Your task to perform on an android device: check the backup settings in the google photos Image 0: 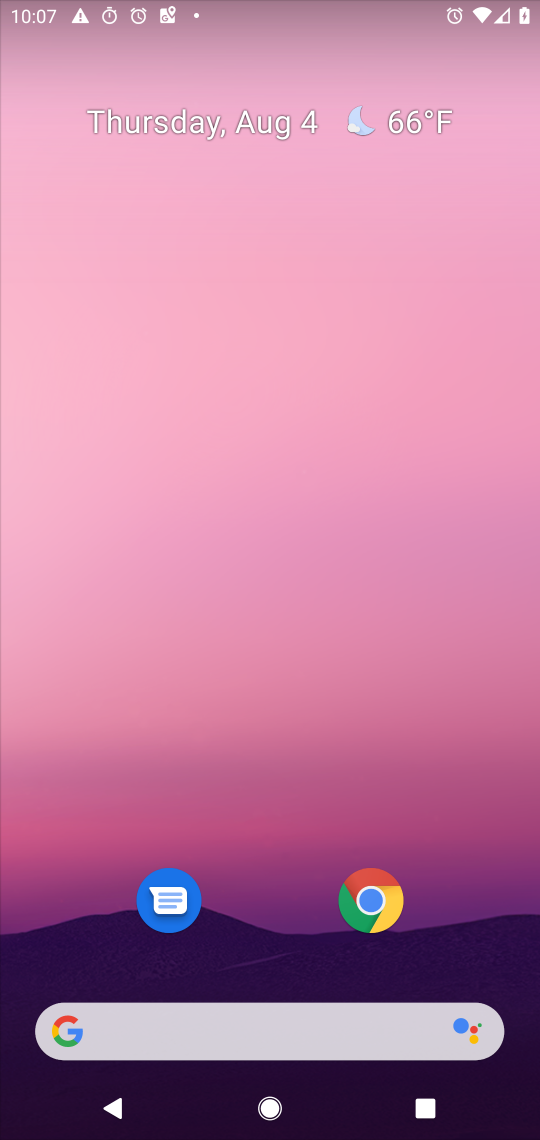
Step 0: drag from (204, 1036) to (259, 142)
Your task to perform on an android device: check the backup settings in the google photos Image 1: 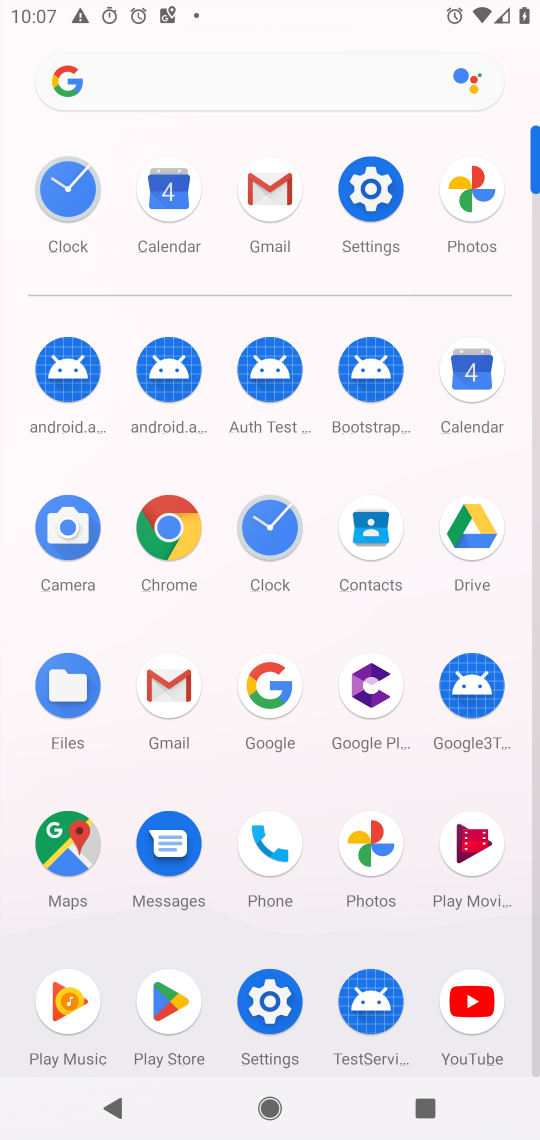
Step 1: click (468, 190)
Your task to perform on an android device: check the backup settings in the google photos Image 2: 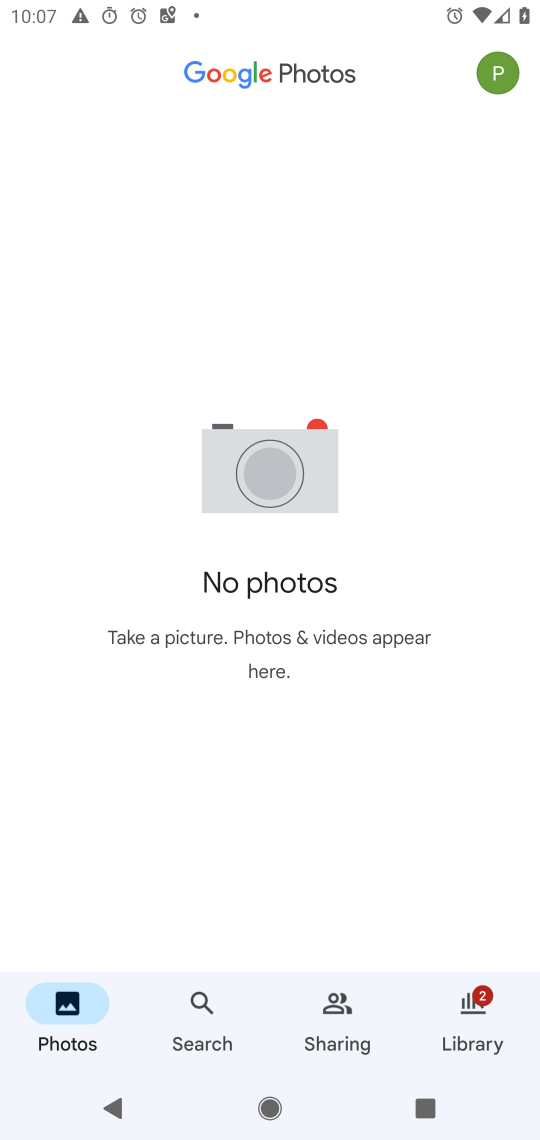
Step 2: click (494, 79)
Your task to perform on an android device: check the backup settings in the google photos Image 3: 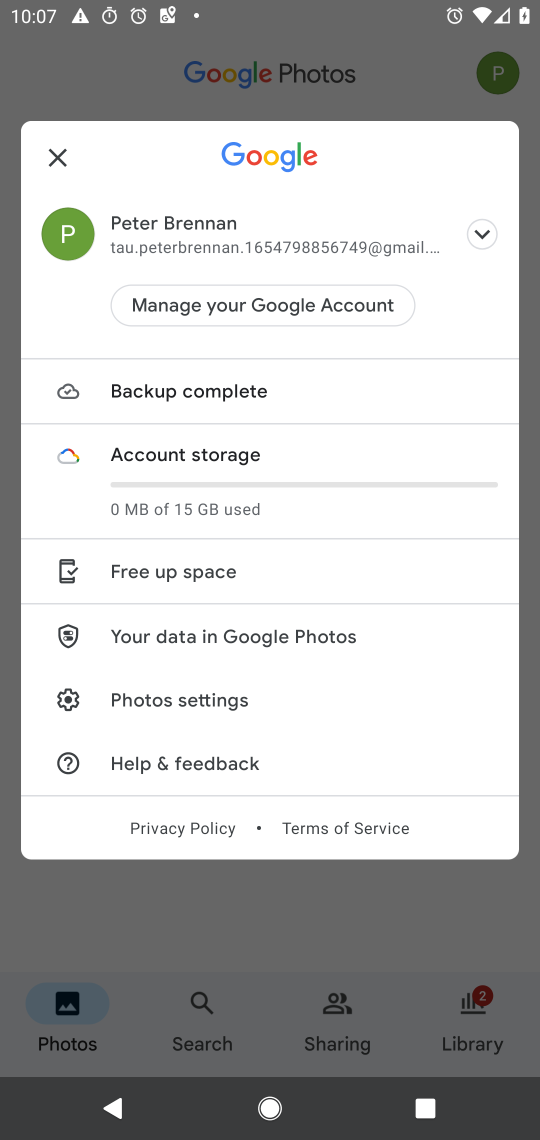
Step 3: click (174, 712)
Your task to perform on an android device: check the backup settings in the google photos Image 4: 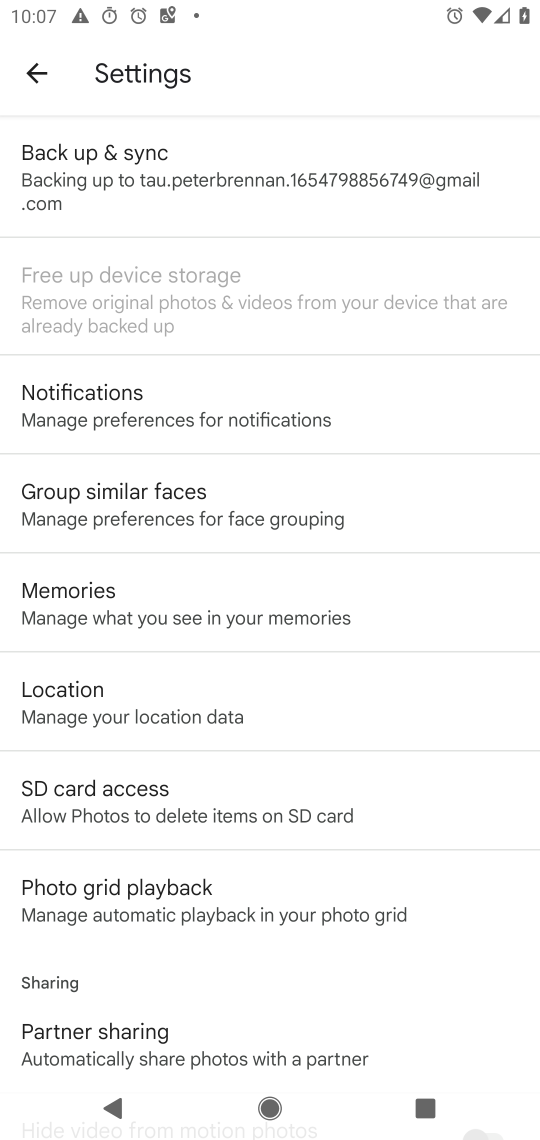
Step 4: click (119, 174)
Your task to perform on an android device: check the backup settings in the google photos Image 5: 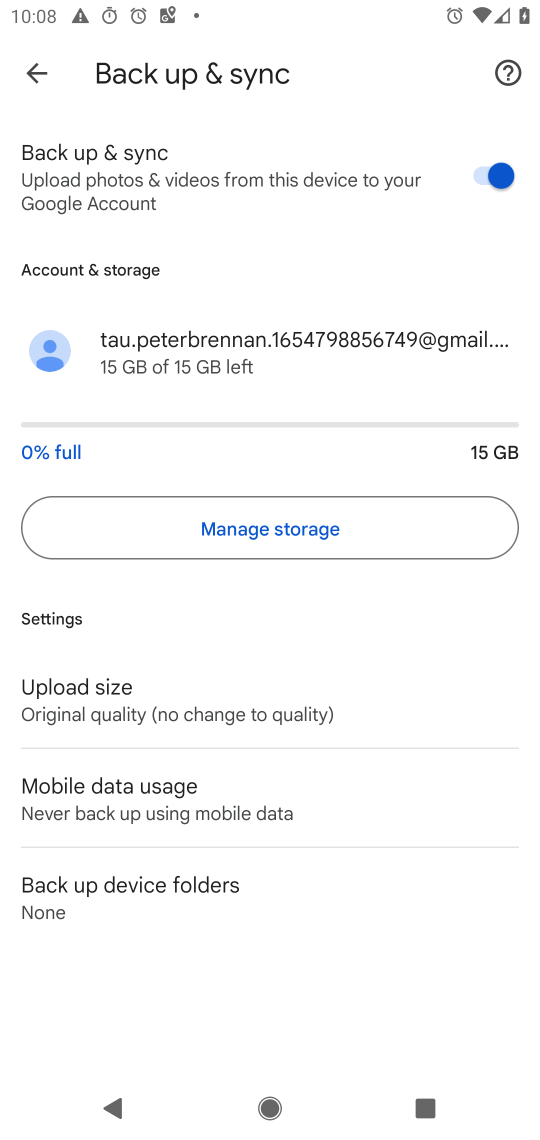
Step 5: task complete